Your task to perform on an android device: View the shopping cart on ebay. Image 0: 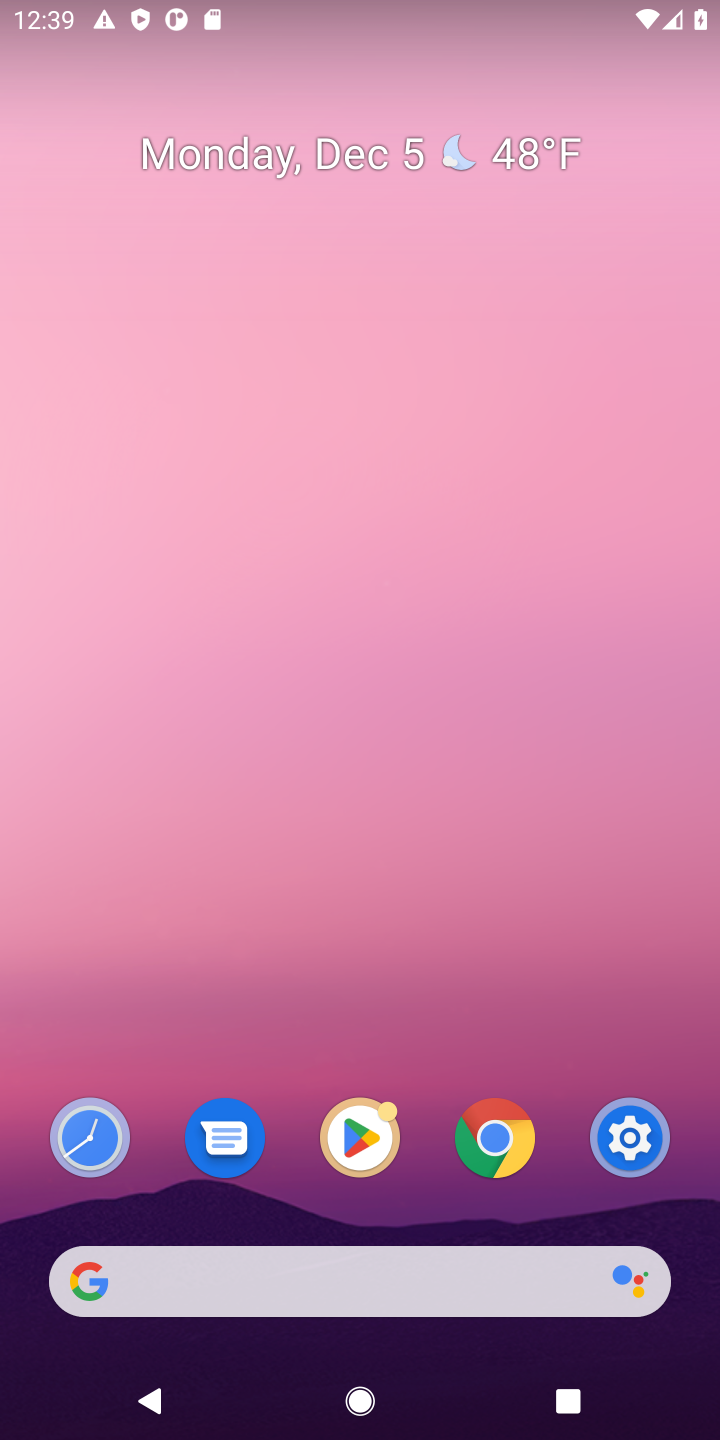
Step 0: click (494, 1139)
Your task to perform on an android device: View the shopping cart on ebay. Image 1: 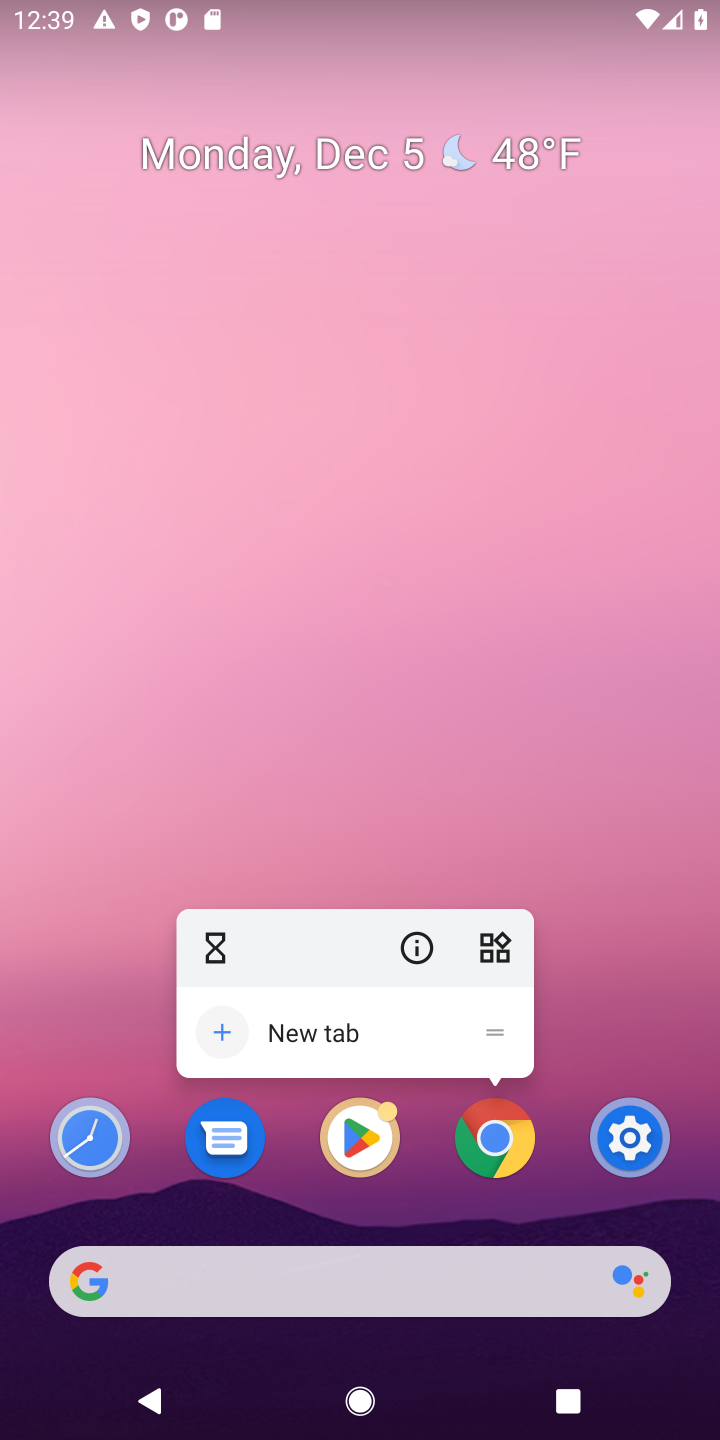
Step 1: click (494, 1139)
Your task to perform on an android device: View the shopping cart on ebay. Image 2: 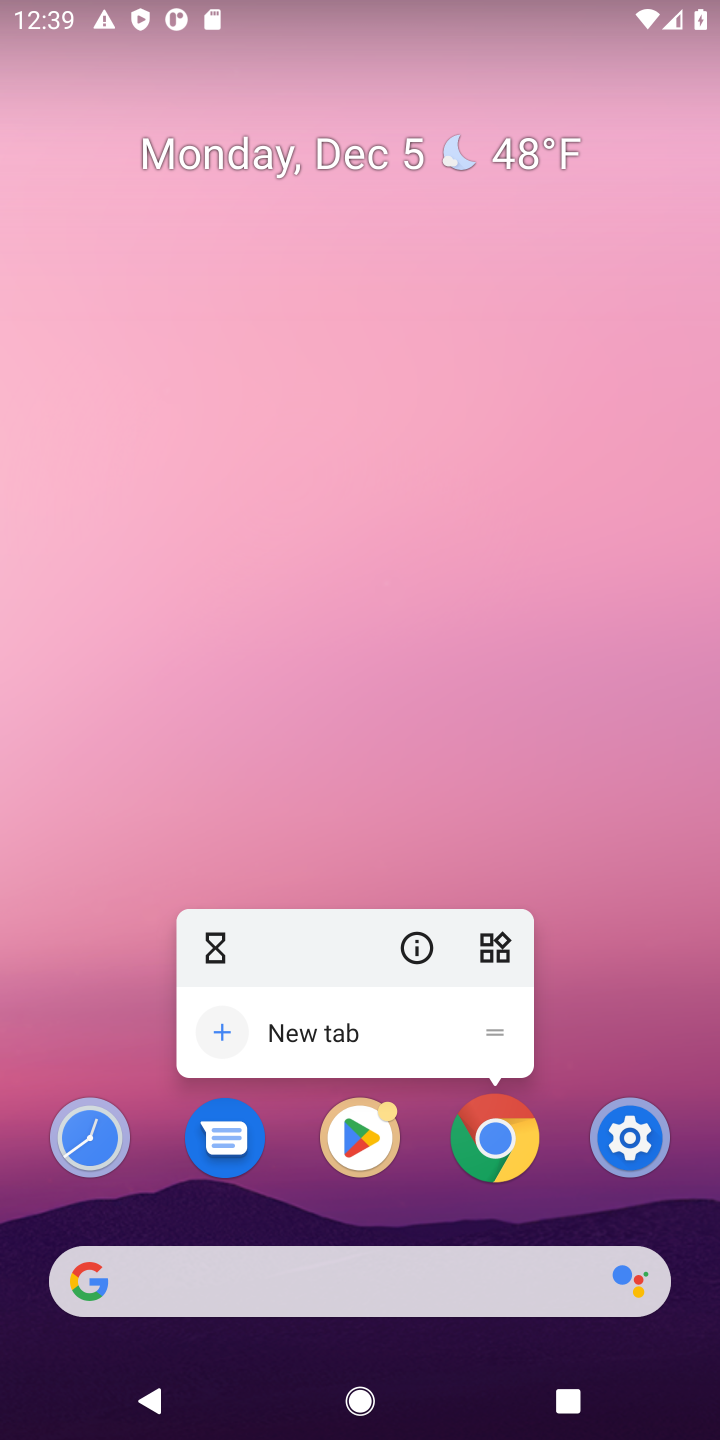
Step 2: click (494, 1139)
Your task to perform on an android device: View the shopping cart on ebay. Image 3: 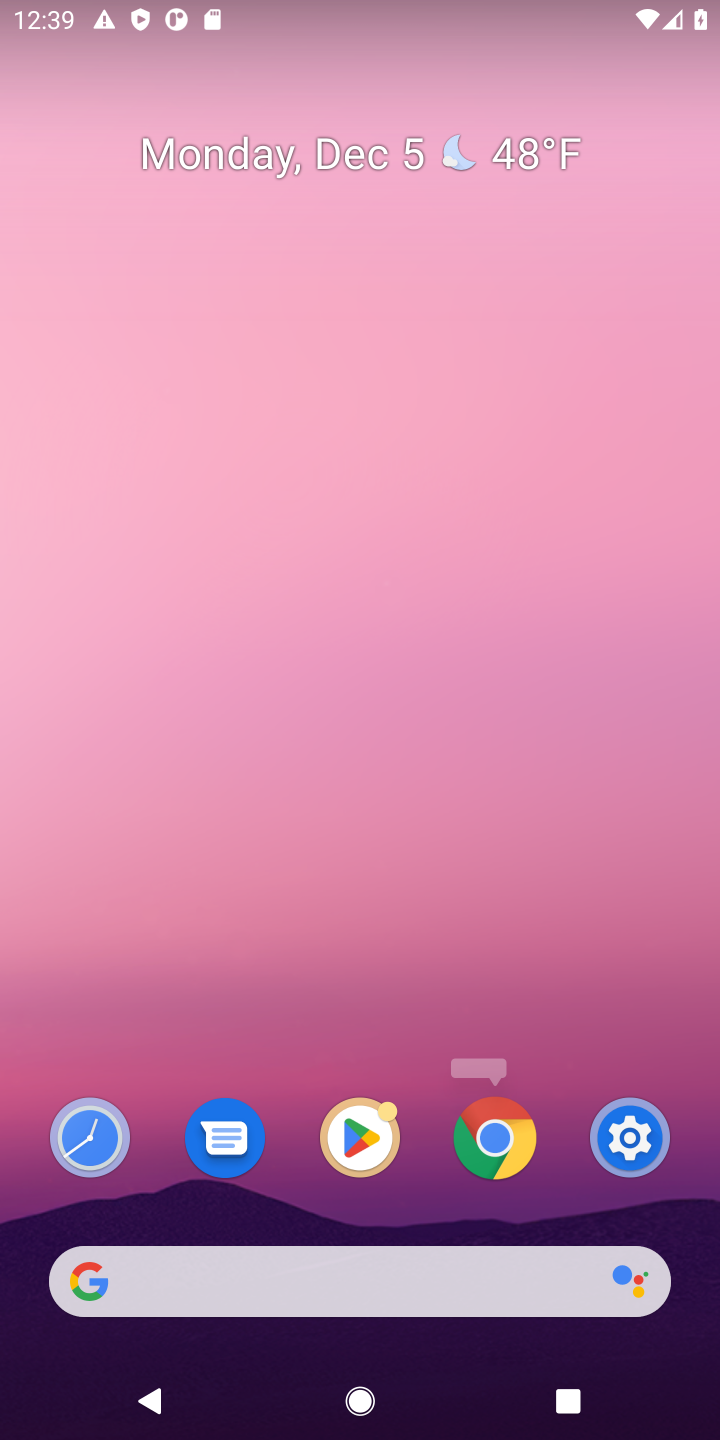
Step 3: click (494, 1139)
Your task to perform on an android device: View the shopping cart on ebay. Image 4: 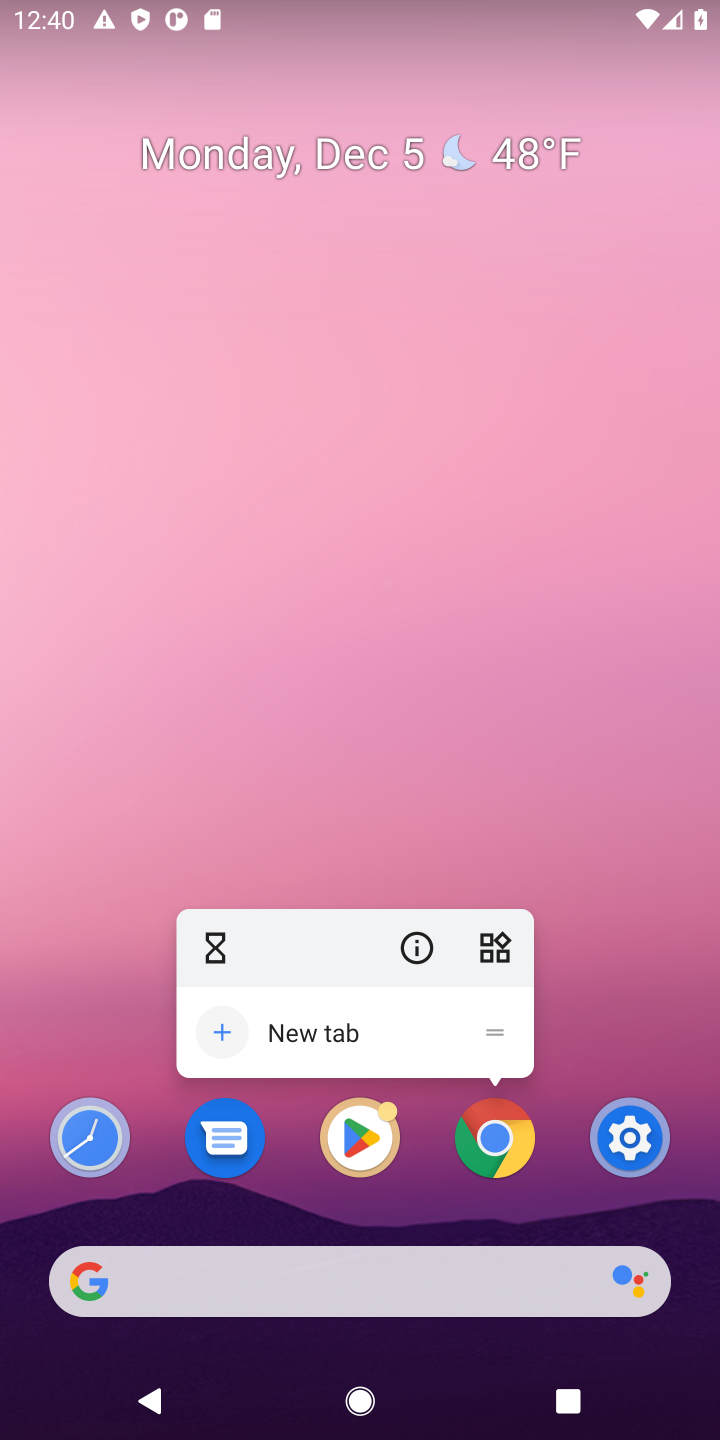
Step 4: click (499, 1174)
Your task to perform on an android device: View the shopping cart on ebay. Image 5: 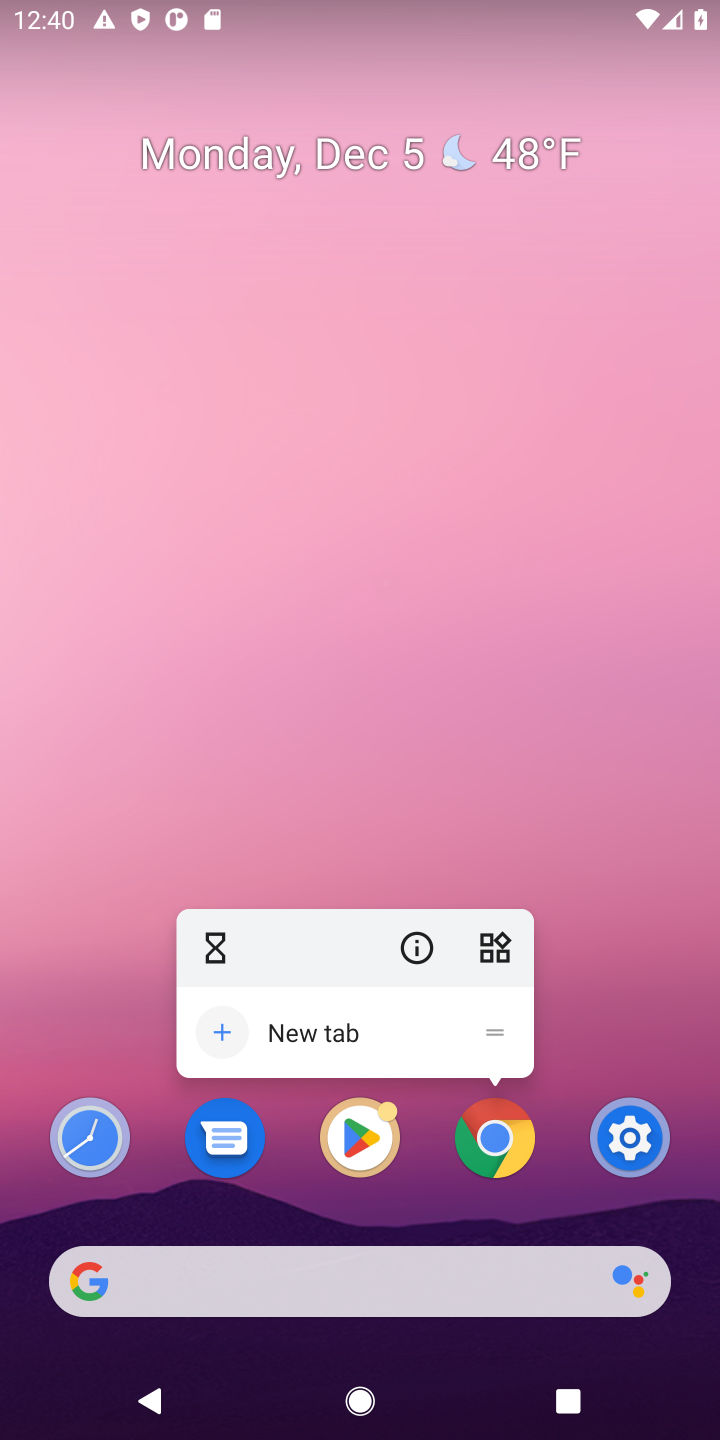
Step 5: click (512, 1137)
Your task to perform on an android device: View the shopping cart on ebay. Image 6: 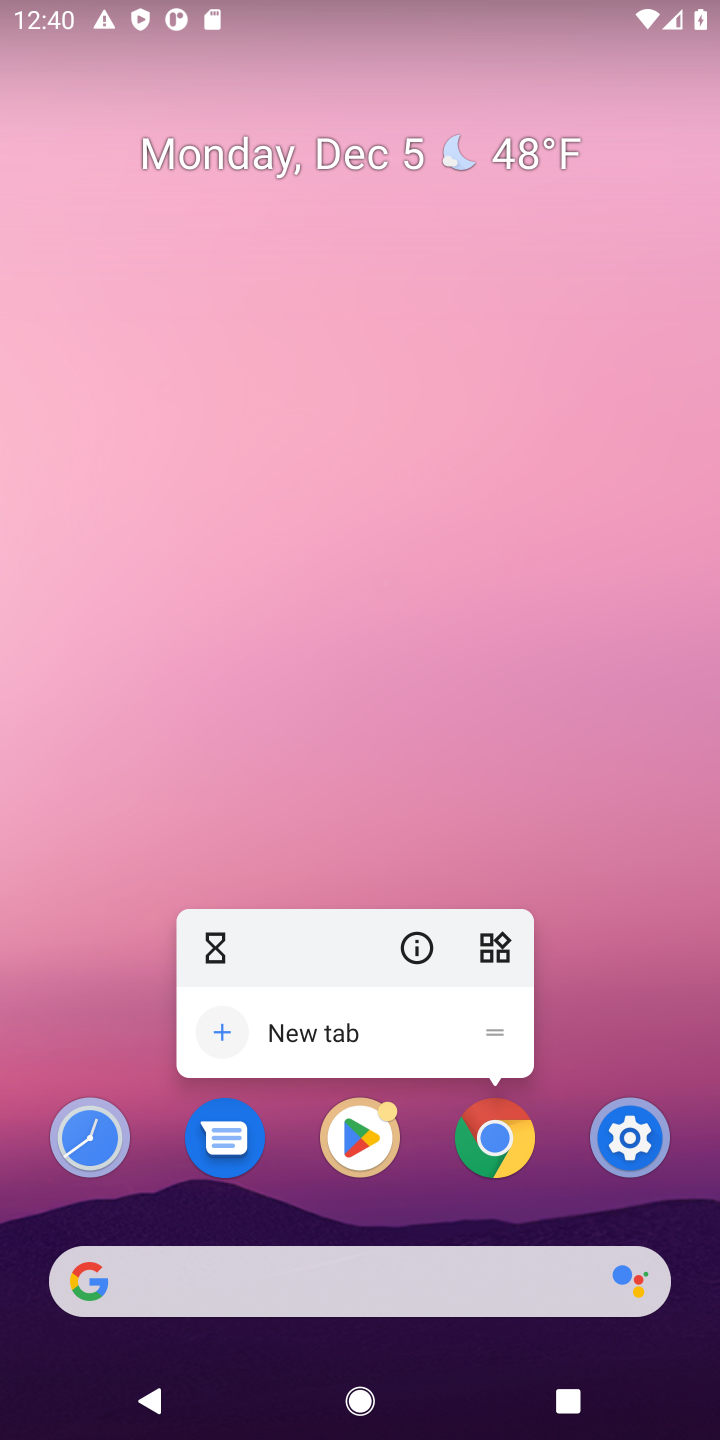
Step 6: click (512, 1137)
Your task to perform on an android device: View the shopping cart on ebay. Image 7: 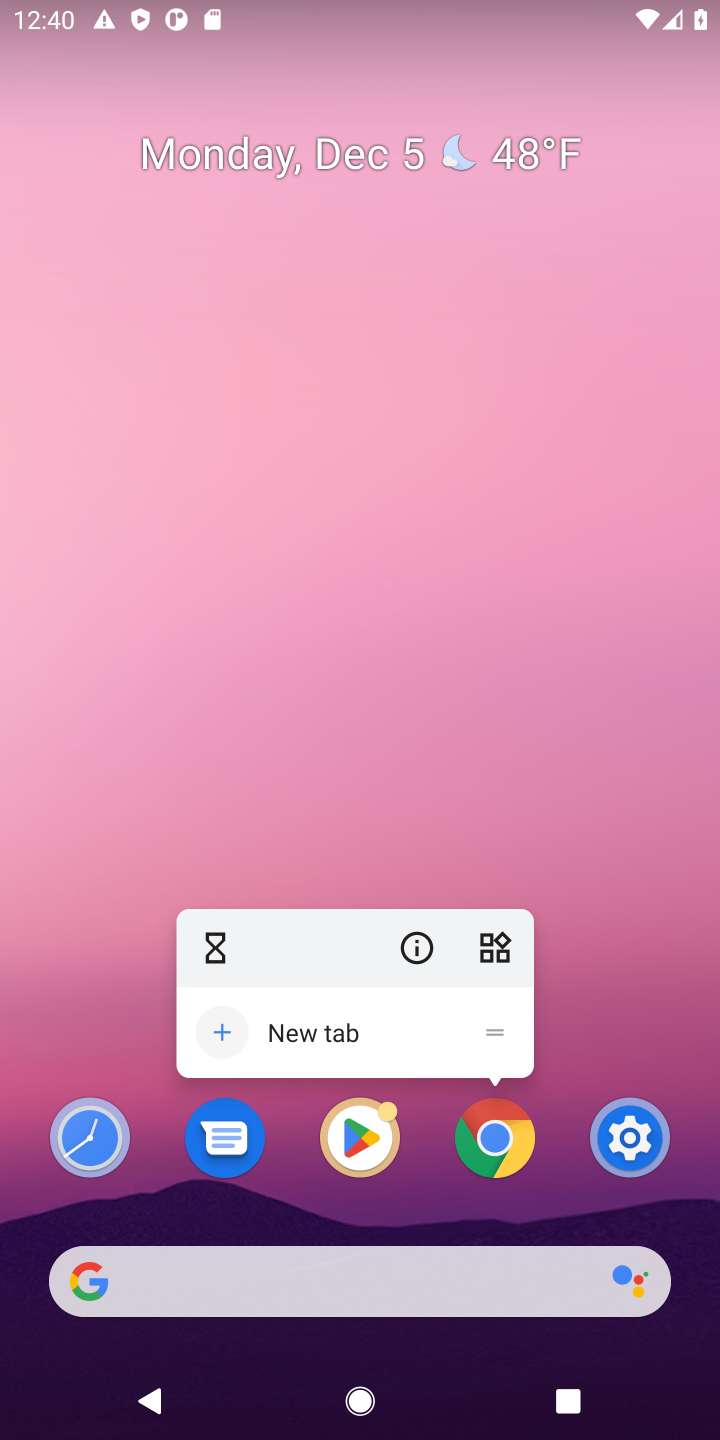
Step 7: click (487, 1161)
Your task to perform on an android device: View the shopping cart on ebay. Image 8: 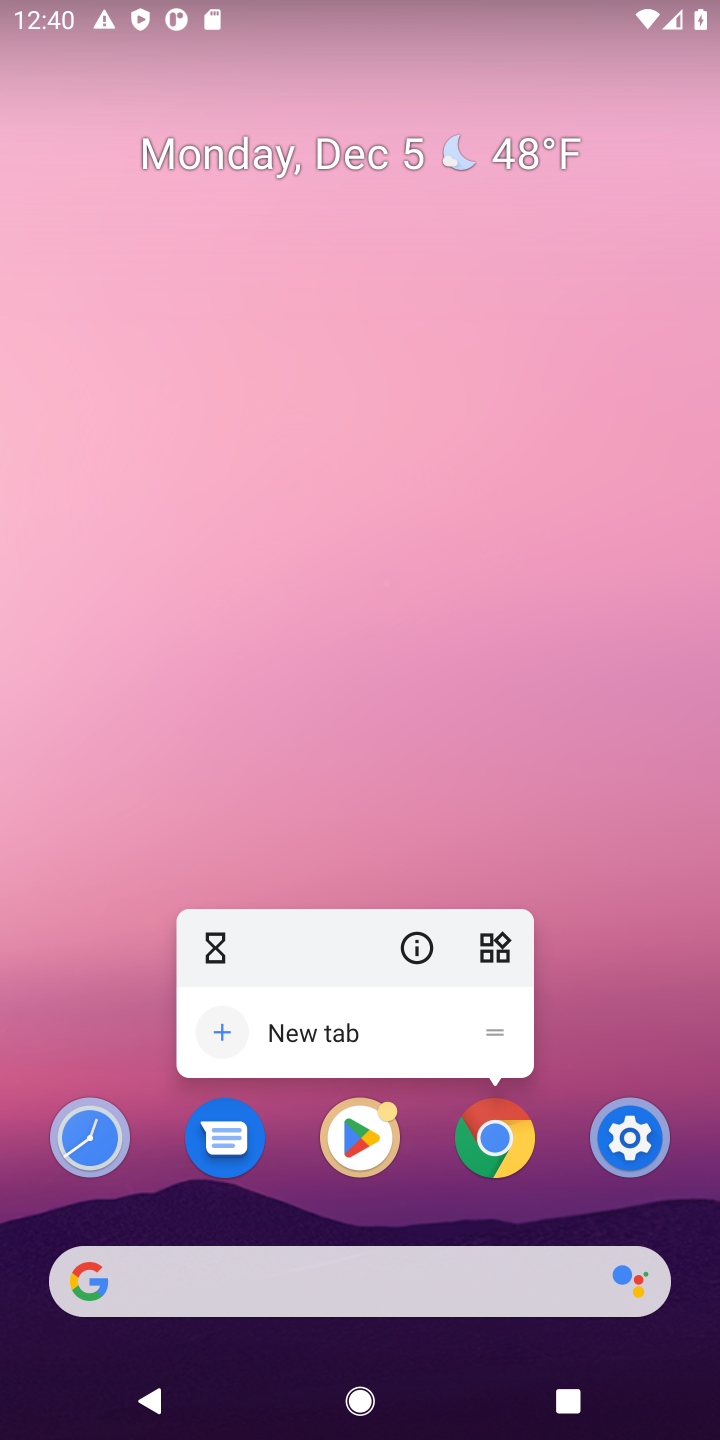
Step 8: click (476, 1148)
Your task to perform on an android device: View the shopping cart on ebay. Image 9: 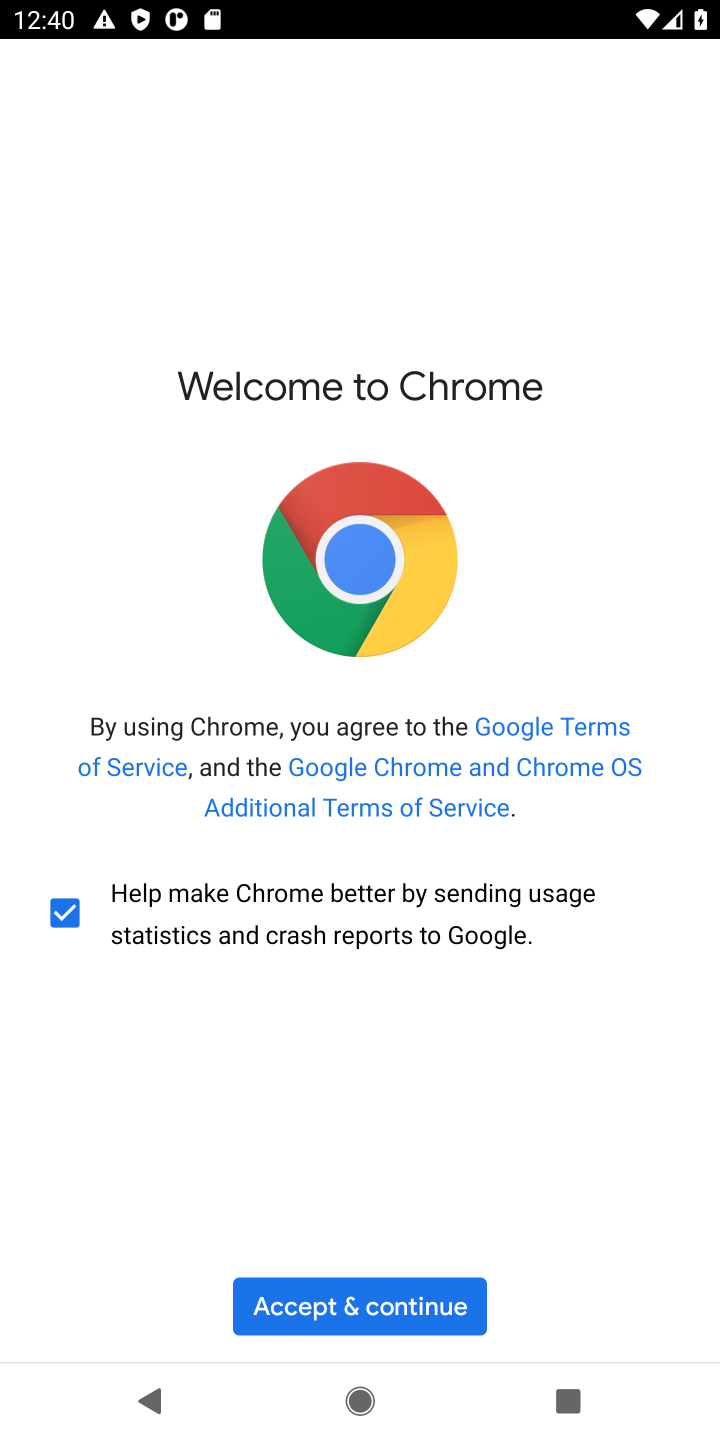
Step 9: click (288, 1310)
Your task to perform on an android device: View the shopping cart on ebay. Image 10: 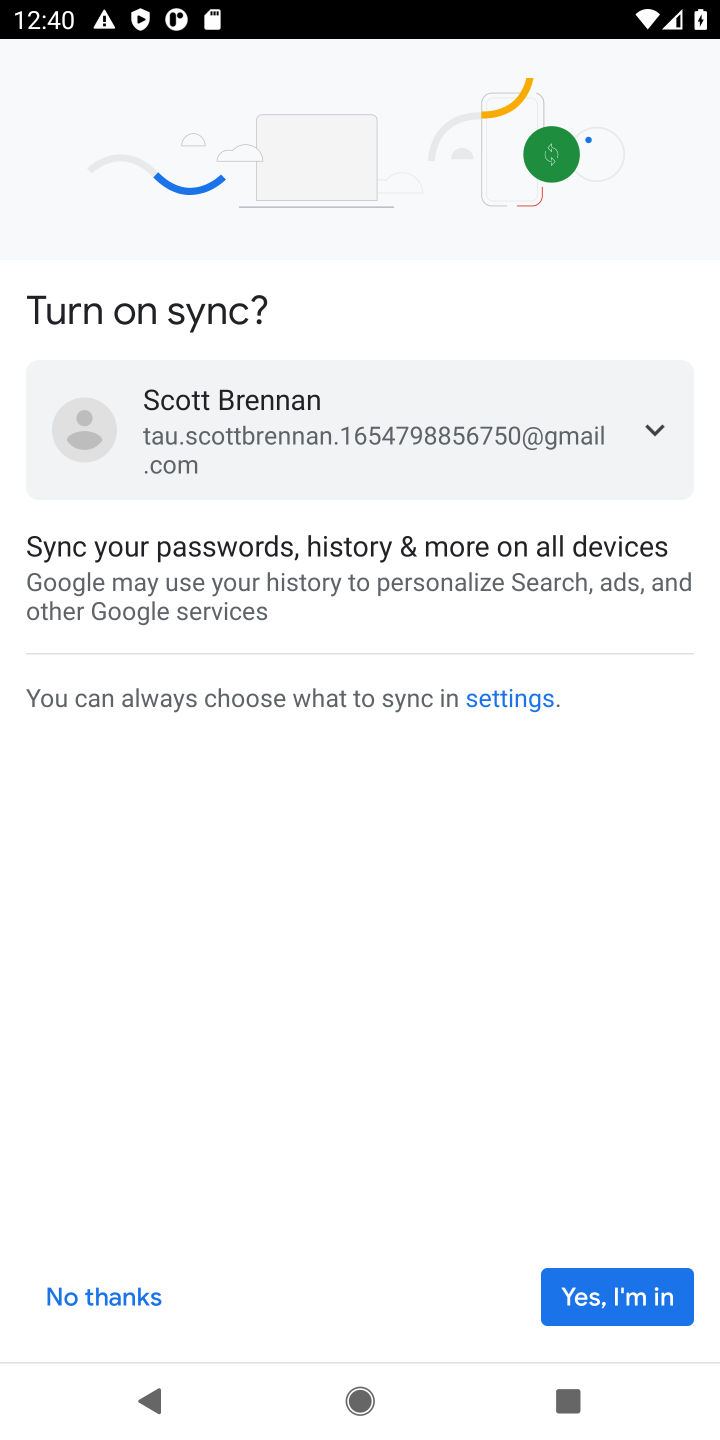
Step 10: click (679, 1302)
Your task to perform on an android device: View the shopping cart on ebay. Image 11: 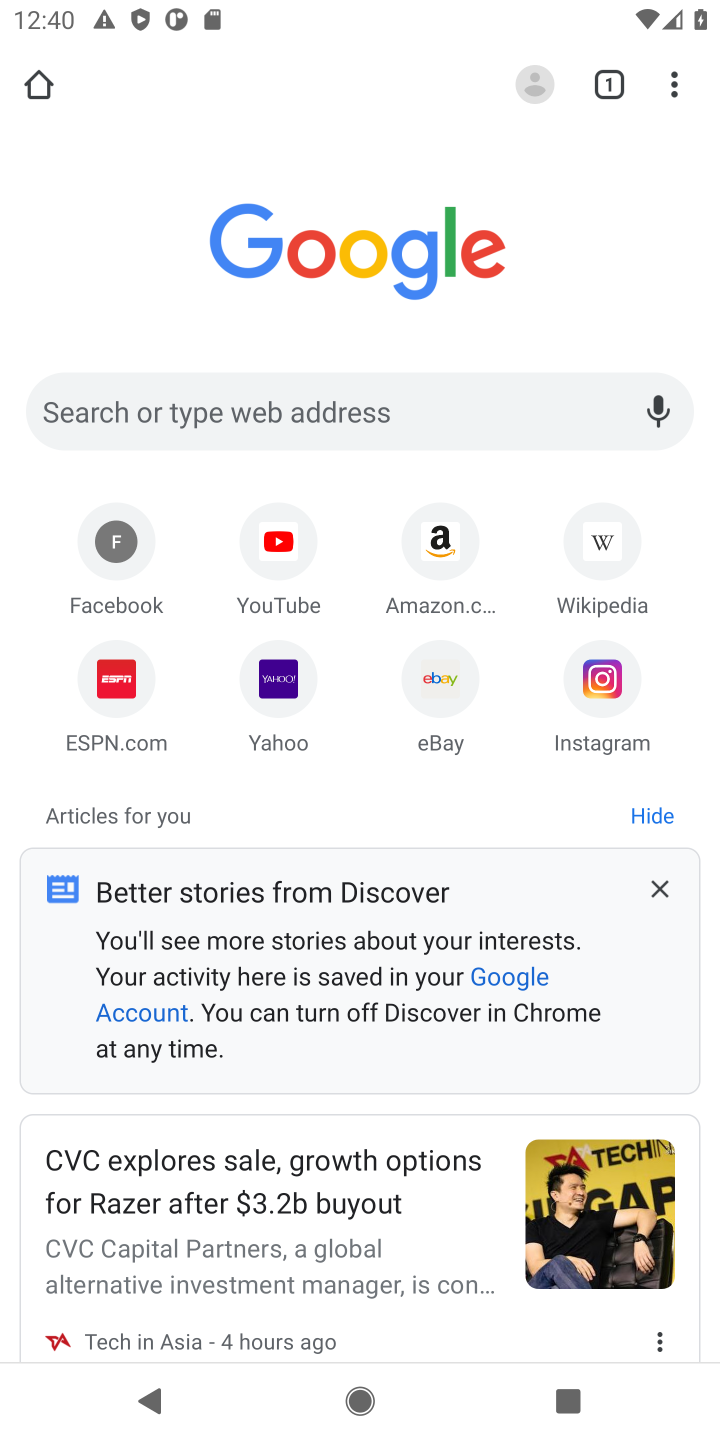
Step 11: click (428, 682)
Your task to perform on an android device: View the shopping cart on ebay. Image 12: 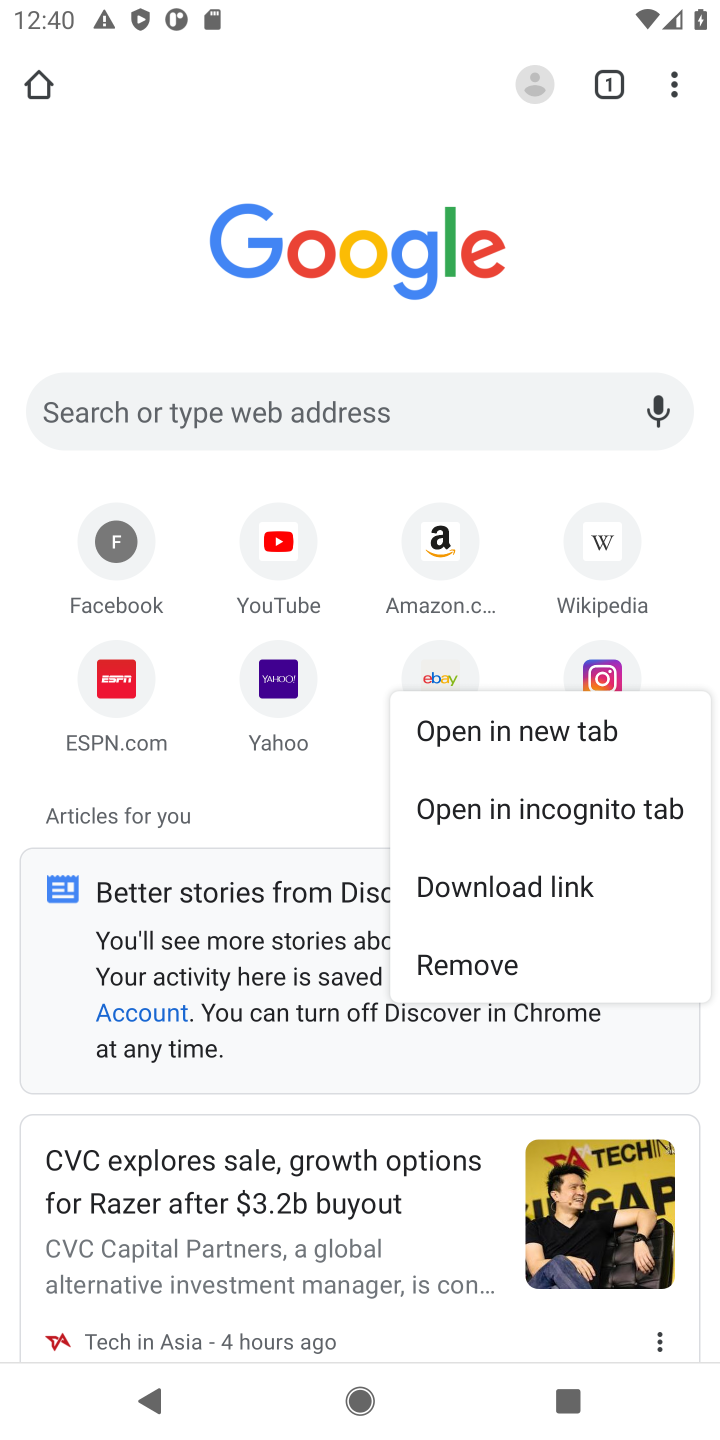
Step 12: click (467, 728)
Your task to perform on an android device: View the shopping cart on ebay. Image 13: 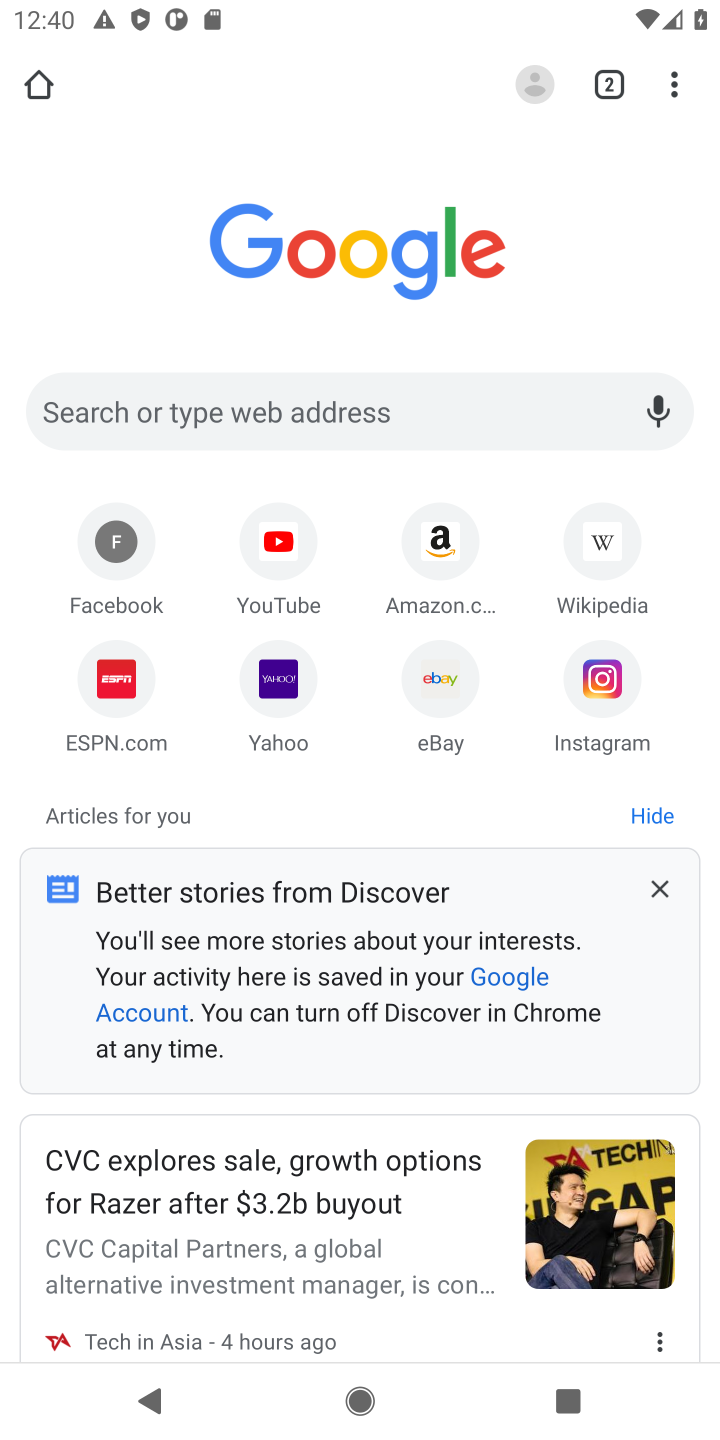
Step 13: click (436, 654)
Your task to perform on an android device: View the shopping cart on ebay. Image 14: 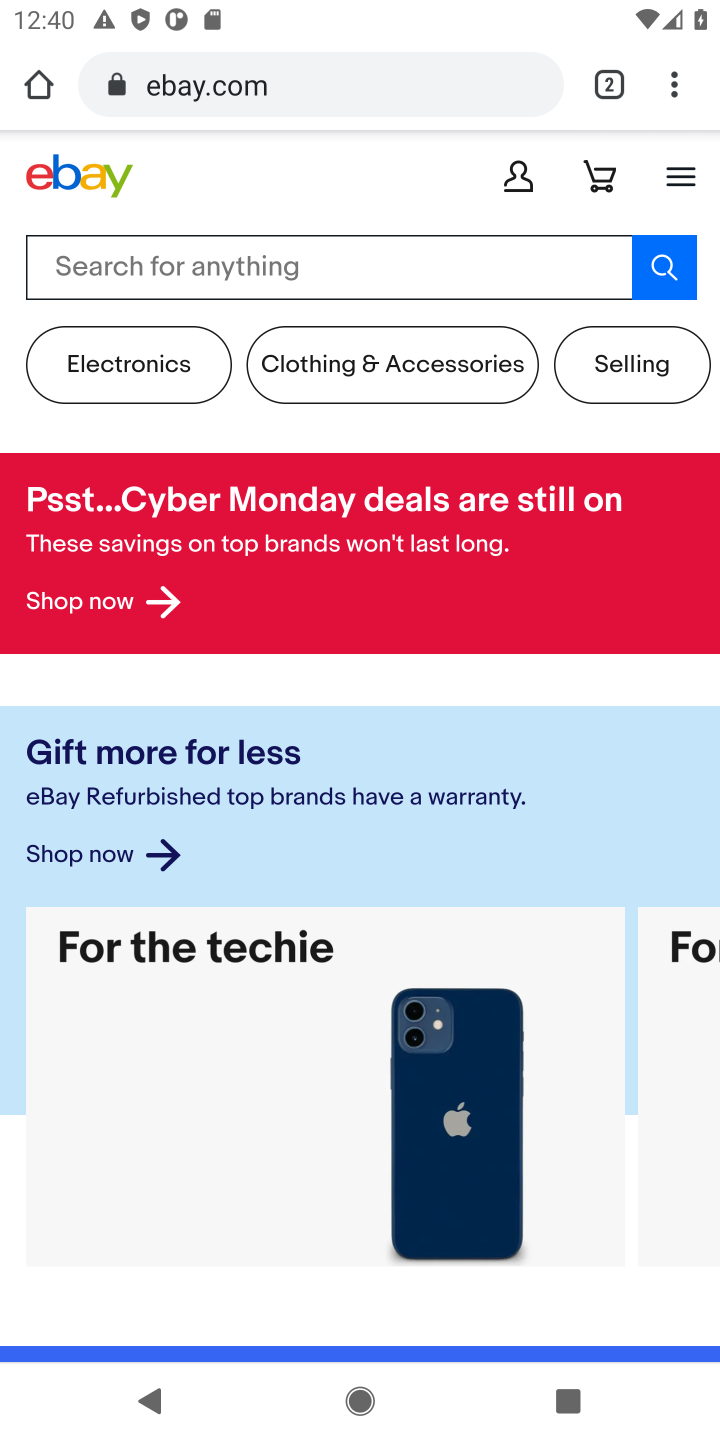
Step 14: click (612, 171)
Your task to perform on an android device: View the shopping cart on ebay. Image 15: 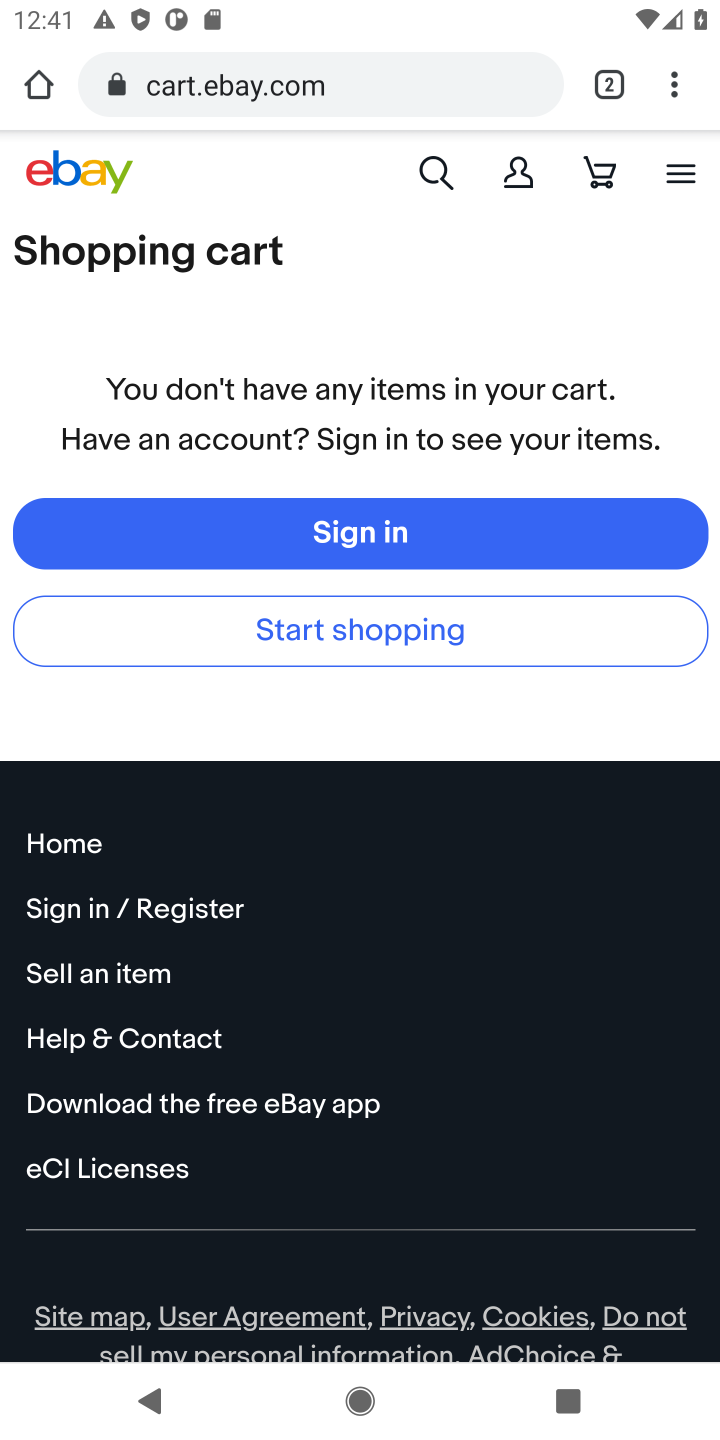
Step 15: task complete